Your task to perform on an android device: toggle pop-ups in chrome Image 0: 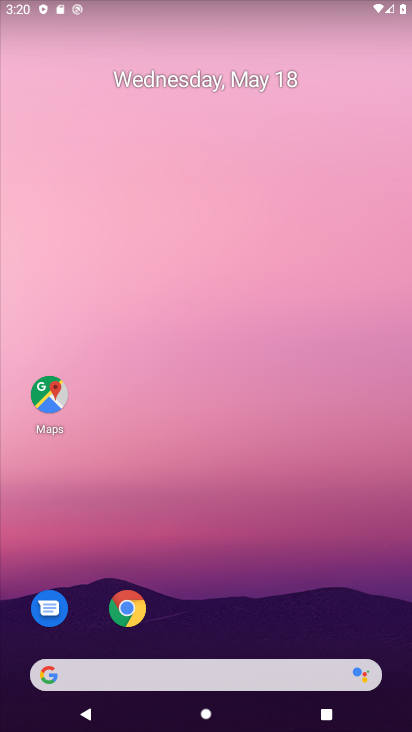
Step 0: click (127, 616)
Your task to perform on an android device: toggle pop-ups in chrome Image 1: 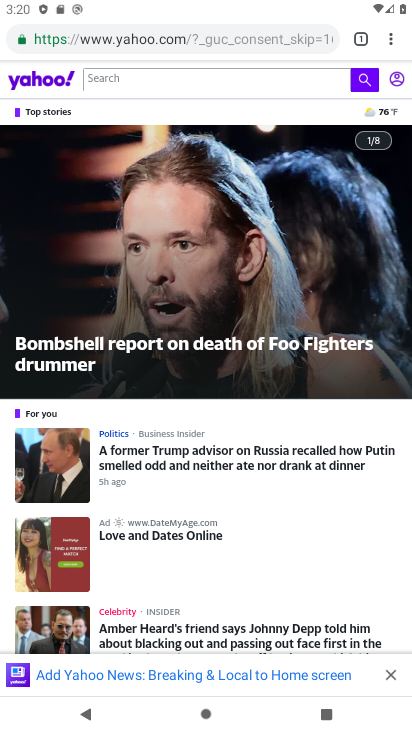
Step 1: click (392, 42)
Your task to perform on an android device: toggle pop-ups in chrome Image 2: 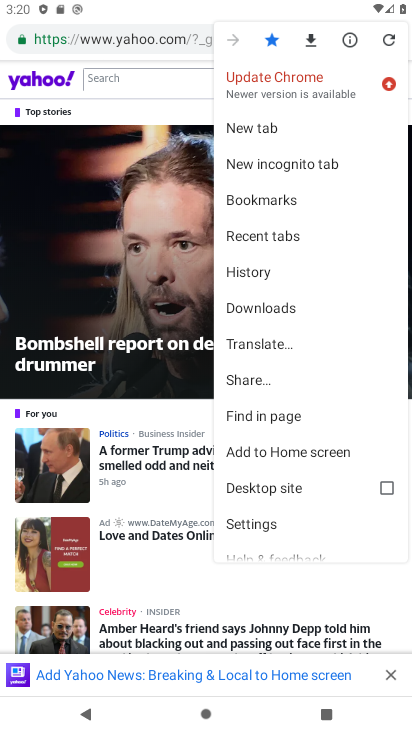
Step 2: click (266, 525)
Your task to perform on an android device: toggle pop-ups in chrome Image 3: 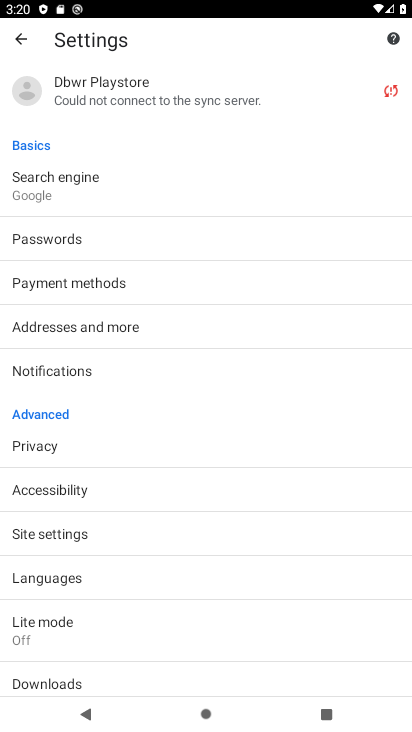
Step 3: click (266, 525)
Your task to perform on an android device: toggle pop-ups in chrome Image 4: 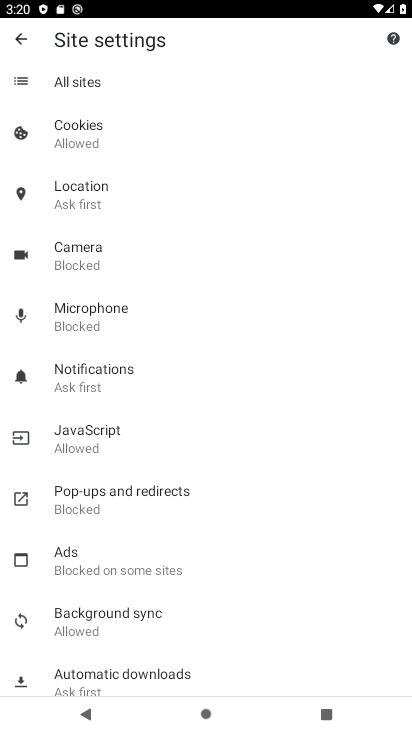
Step 4: click (109, 511)
Your task to perform on an android device: toggle pop-ups in chrome Image 5: 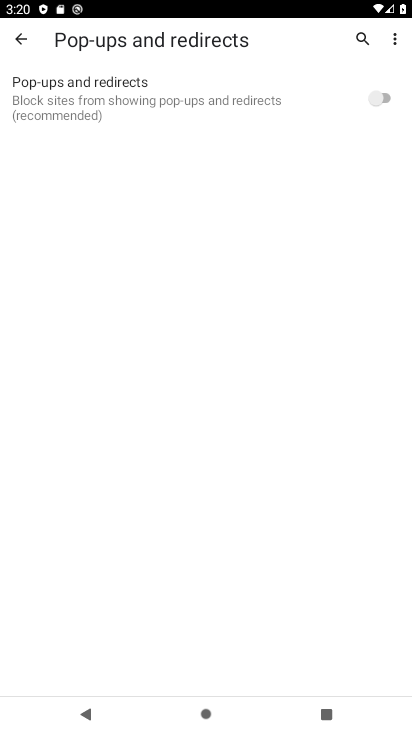
Step 5: click (386, 91)
Your task to perform on an android device: toggle pop-ups in chrome Image 6: 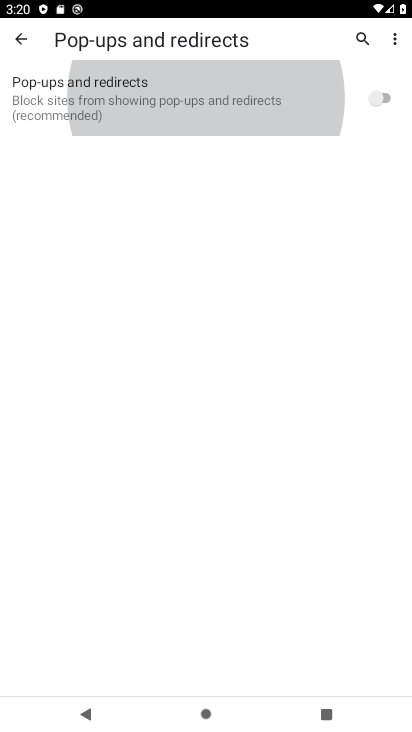
Step 6: click (386, 91)
Your task to perform on an android device: toggle pop-ups in chrome Image 7: 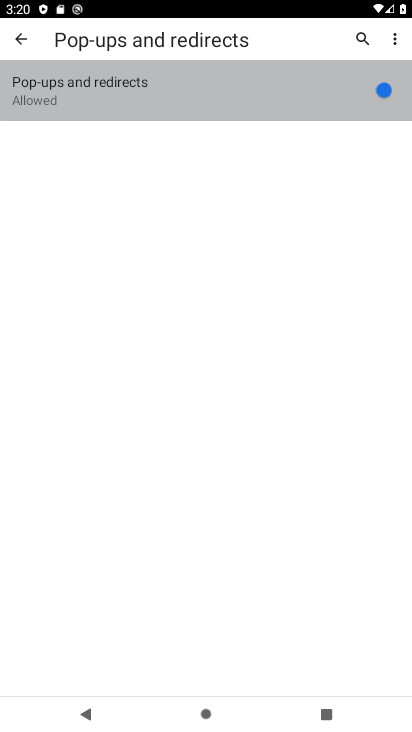
Step 7: click (386, 91)
Your task to perform on an android device: toggle pop-ups in chrome Image 8: 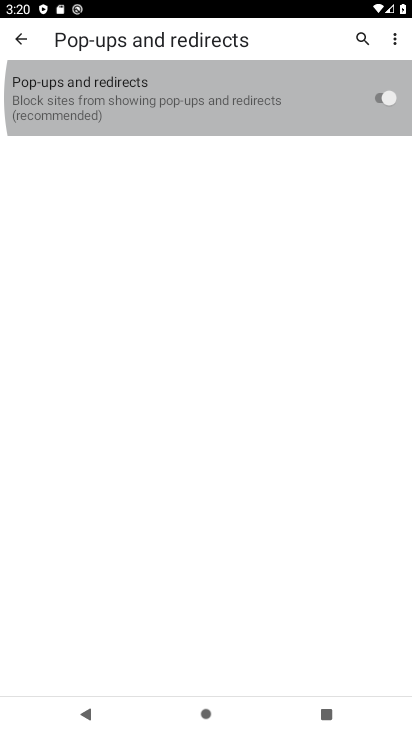
Step 8: click (386, 91)
Your task to perform on an android device: toggle pop-ups in chrome Image 9: 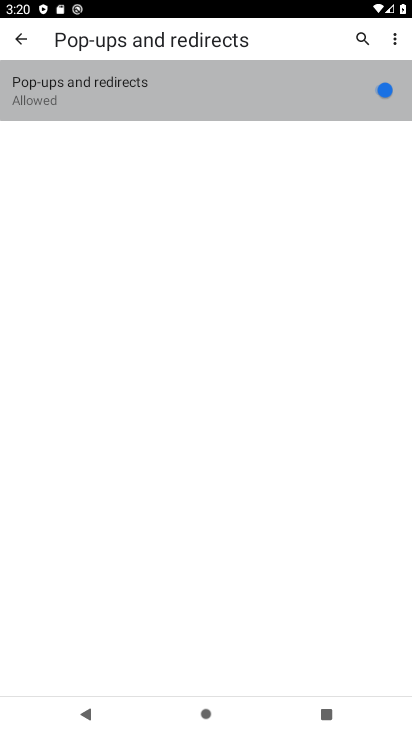
Step 9: click (386, 91)
Your task to perform on an android device: toggle pop-ups in chrome Image 10: 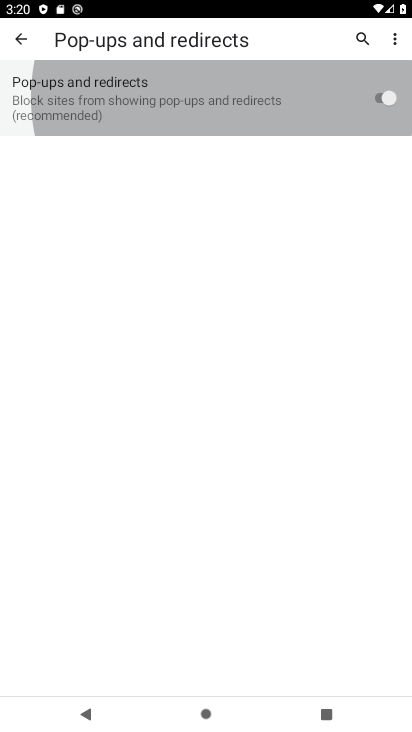
Step 10: click (386, 91)
Your task to perform on an android device: toggle pop-ups in chrome Image 11: 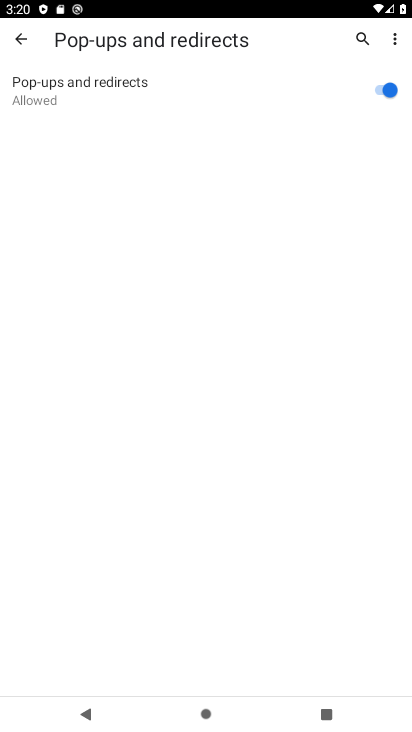
Step 11: task complete